Your task to perform on an android device: make emails show in primary in the gmail app Image 0: 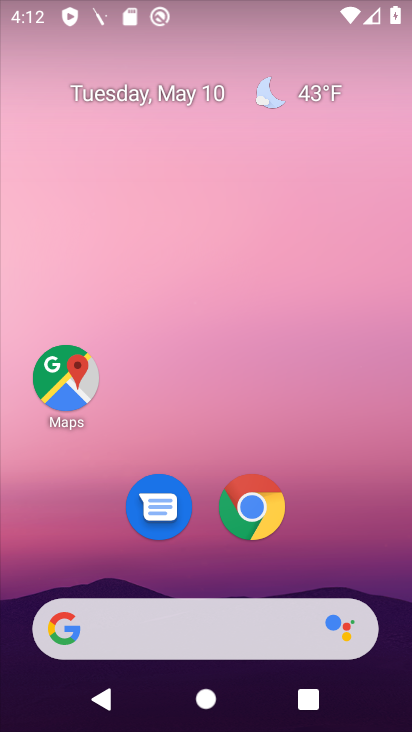
Step 0: drag from (264, 594) to (409, 126)
Your task to perform on an android device: make emails show in primary in the gmail app Image 1: 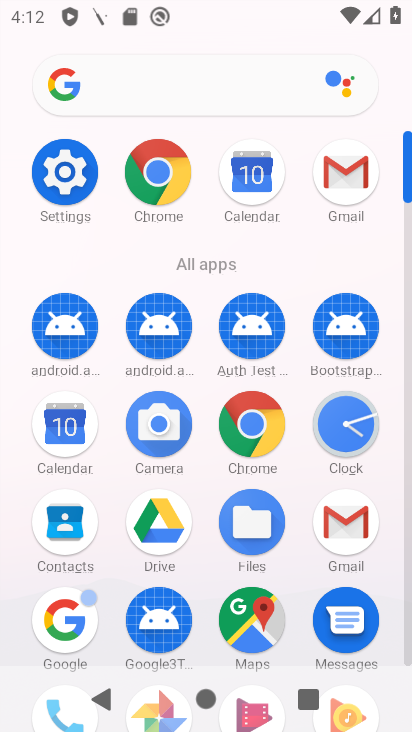
Step 1: click (361, 175)
Your task to perform on an android device: make emails show in primary in the gmail app Image 2: 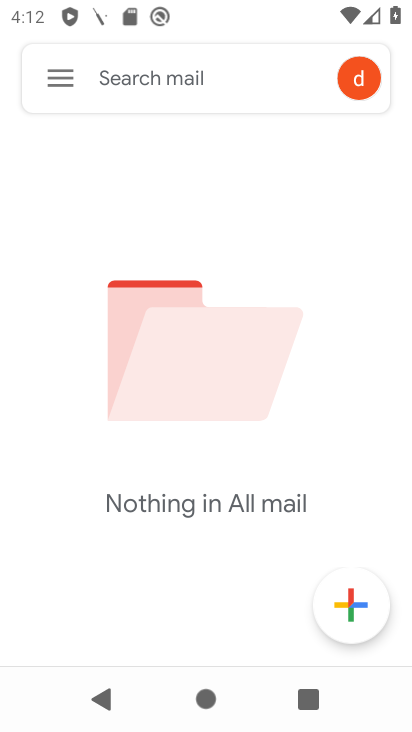
Step 2: click (59, 68)
Your task to perform on an android device: make emails show in primary in the gmail app Image 3: 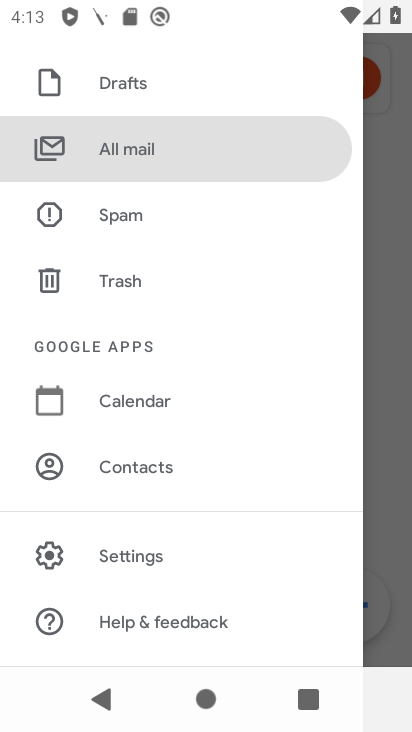
Step 3: click (106, 565)
Your task to perform on an android device: make emails show in primary in the gmail app Image 4: 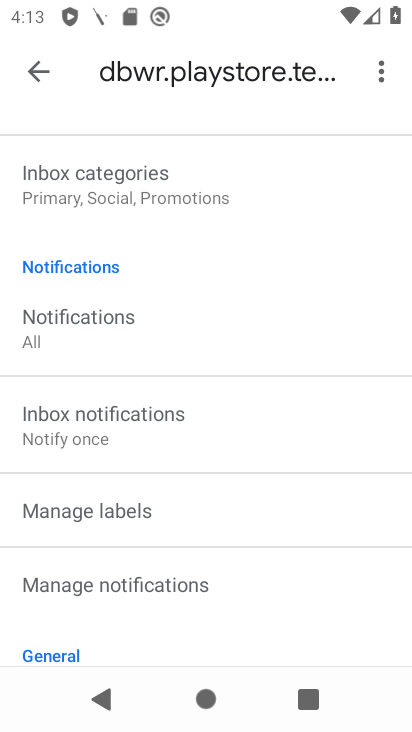
Step 4: click (258, 193)
Your task to perform on an android device: make emails show in primary in the gmail app Image 5: 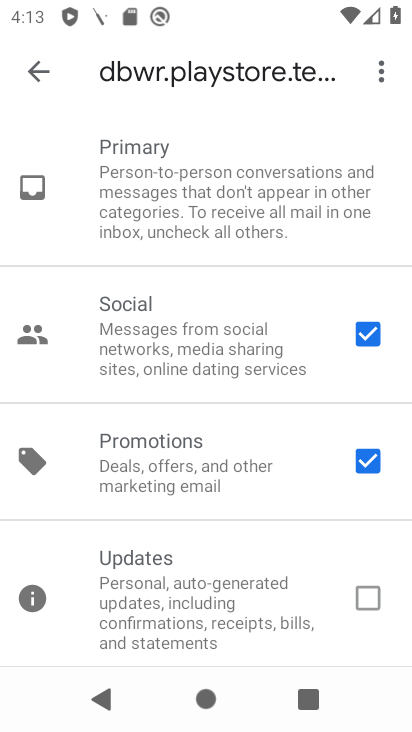
Step 5: drag from (352, 170) to (303, 374)
Your task to perform on an android device: make emails show in primary in the gmail app Image 6: 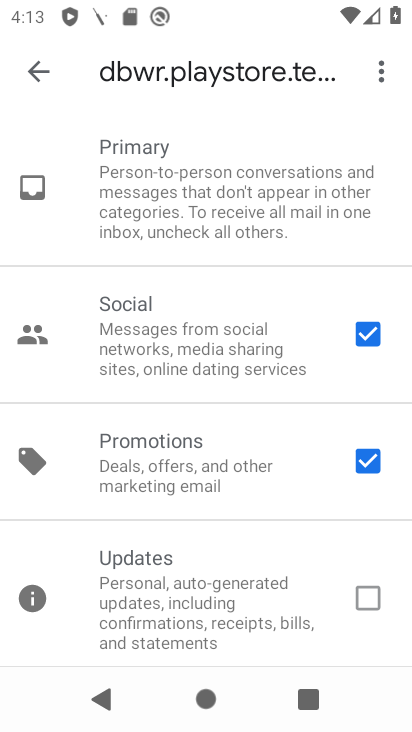
Step 6: click (373, 218)
Your task to perform on an android device: make emails show in primary in the gmail app Image 7: 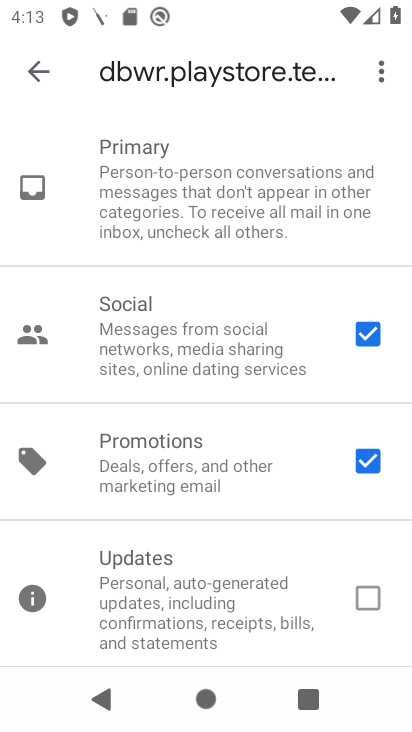
Step 7: drag from (238, 413) to (302, 129)
Your task to perform on an android device: make emails show in primary in the gmail app Image 8: 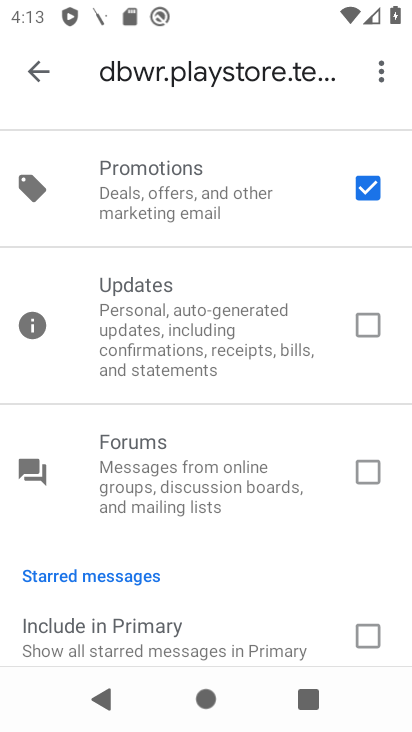
Step 8: click (362, 641)
Your task to perform on an android device: make emails show in primary in the gmail app Image 9: 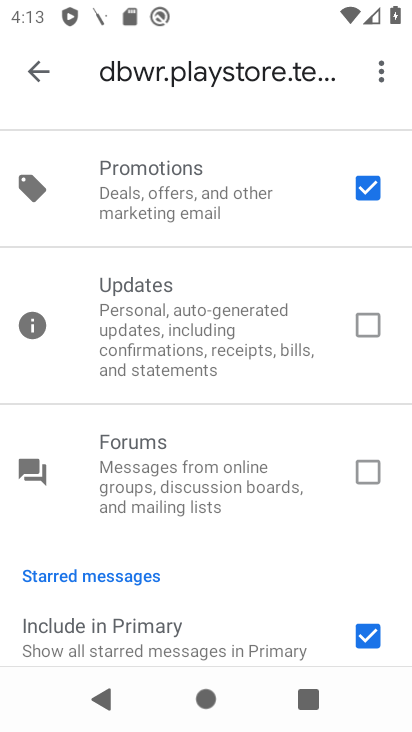
Step 9: task complete